Your task to perform on an android device: clear history in the chrome app Image 0: 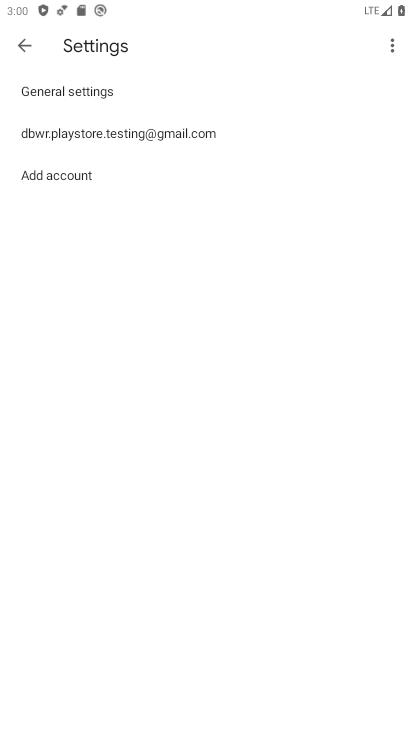
Step 0: press home button
Your task to perform on an android device: clear history in the chrome app Image 1: 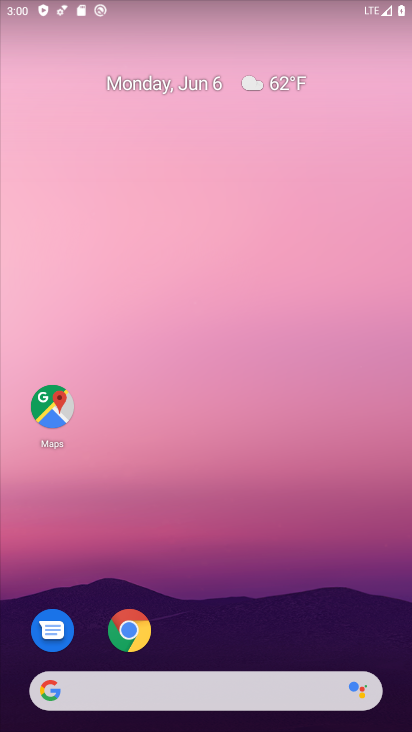
Step 1: click (118, 610)
Your task to perform on an android device: clear history in the chrome app Image 2: 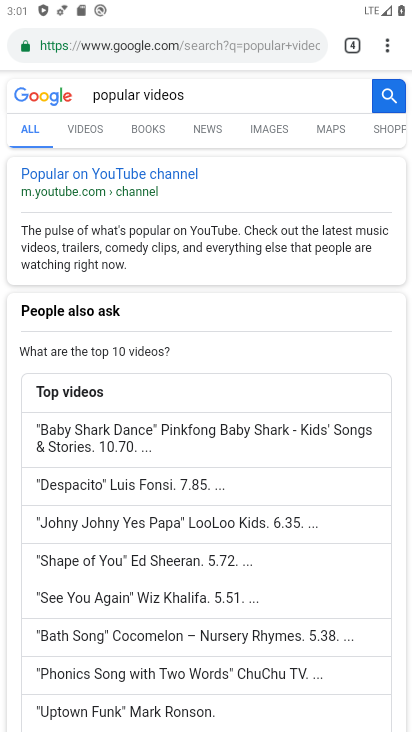
Step 2: drag from (383, 46) to (226, 248)
Your task to perform on an android device: clear history in the chrome app Image 3: 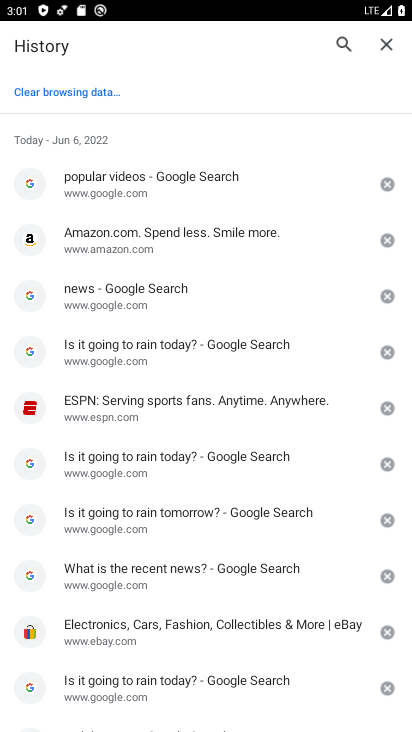
Step 3: click (70, 89)
Your task to perform on an android device: clear history in the chrome app Image 4: 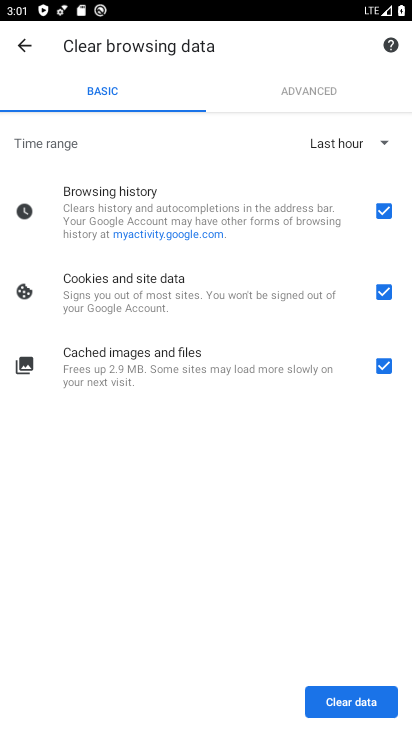
Step 4: click (324, 699)
Your task to perform on an android device: clear history in the chrome app Image 5: 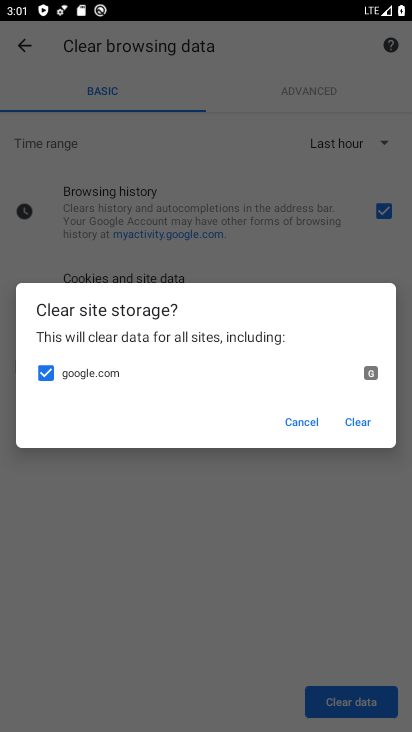
Step 5: click (364, 432)
Your task to perform on an android device: clear history in the chrome app Image 6: 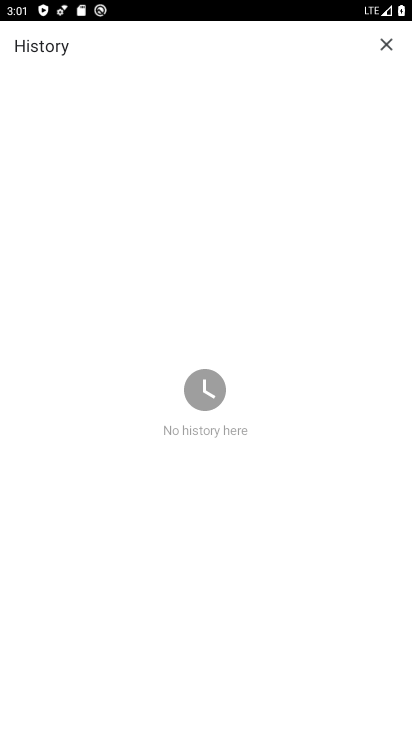
Step 6: task complete